Your task to perform on an android device: When is my next appointment? Image 0: 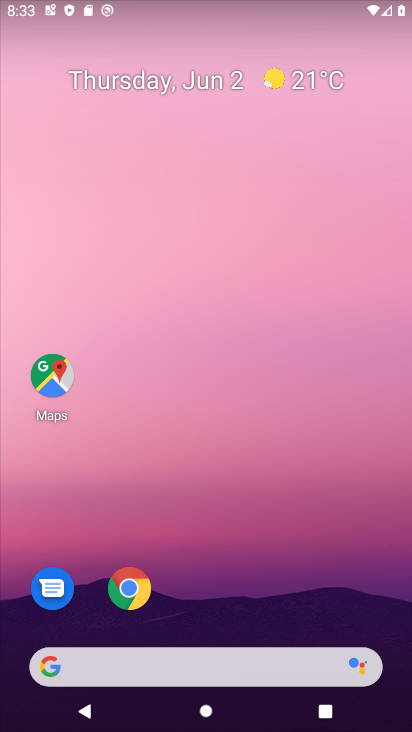
Step 0: drag from (185, 652) to (280, 35)
Your task to perform on an android device: When is my next appointment? Image 1: 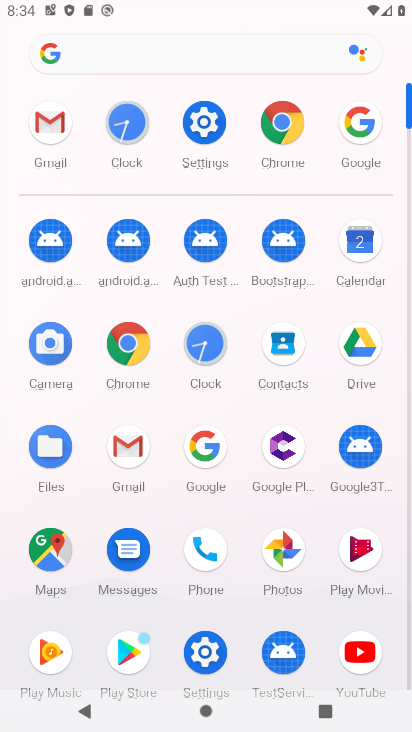
Step 1: click (355, 249)
Your task to perform on an android device: When is my next appointment? Image 2: 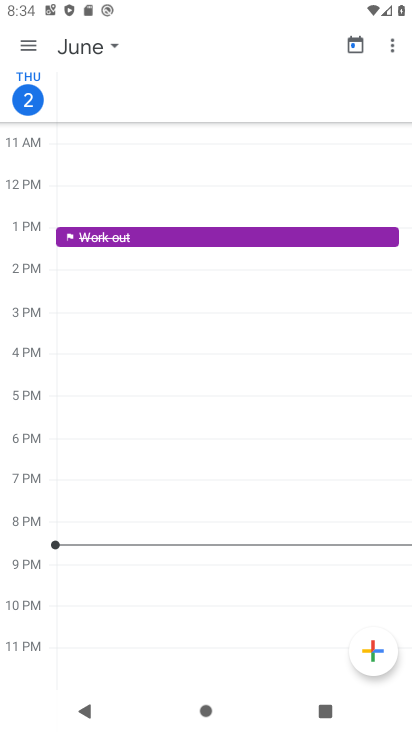
Step 2: click (31, 47)
Your task to perform on an android device: When is my next appointment? Image 3: 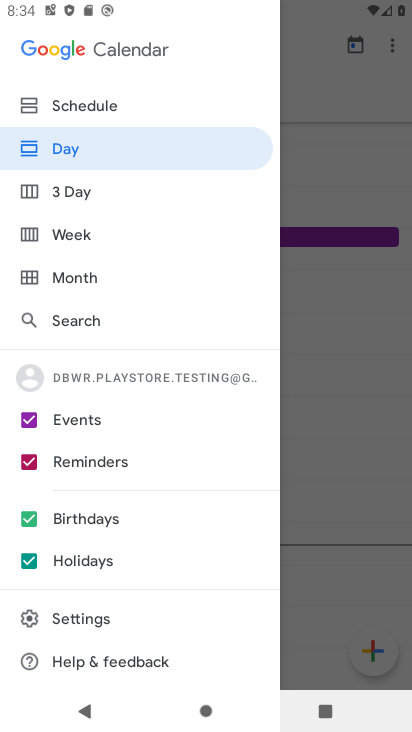
Step 3: click (123, 106)
Your task to perform on an android device: When is my next appointment? Image 4: 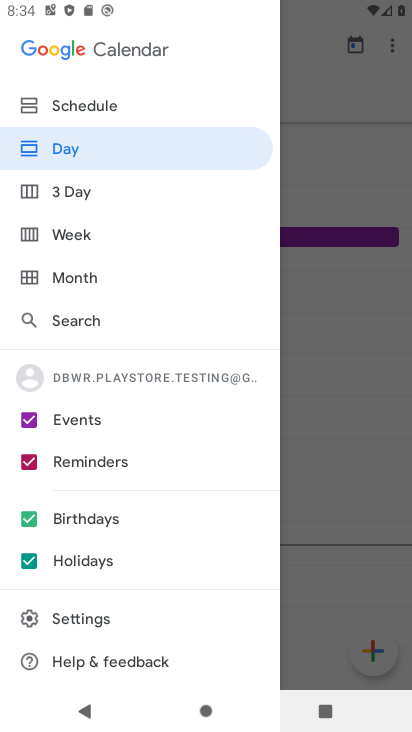
Step 4: click (95, 109)
Your task to perform on an android device: When is my next appointment? Image 5: 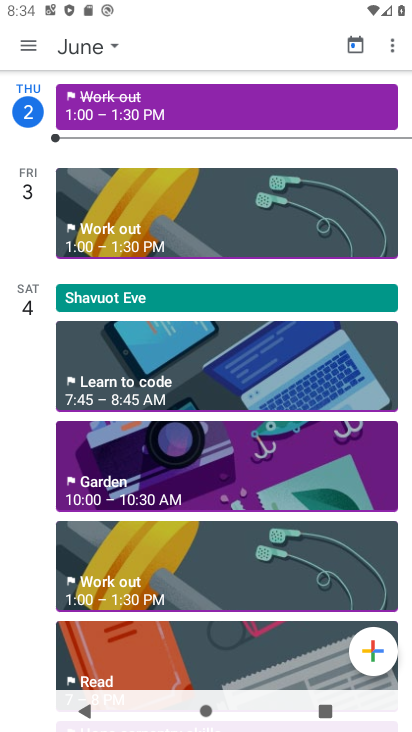
Step 5: task complete